Your task to perform on an android device: find photos in the google photos app Image 0: 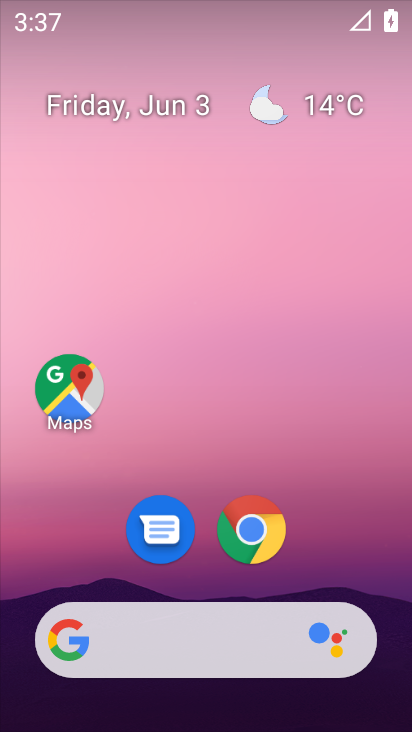
Step 0: drag from (339, 485) to (325, 66)
Your task to perform on an android device: find photos in the google photos app Image 1: 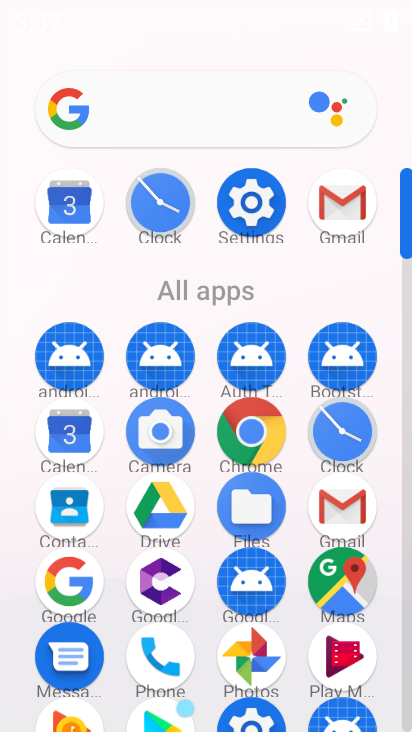
Step 1: click (266, 639)
Your task to perform on an android device: find photos in the google photos app Image 2: 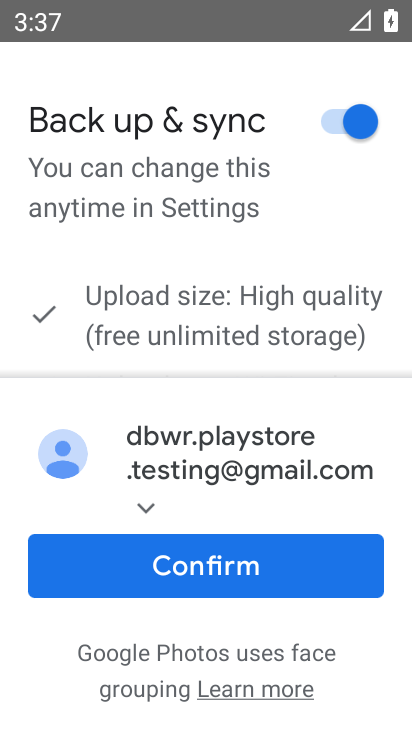
Step 2: click (225, 537)
Your task to perform on an android device: find photos in the google photos app Image 3: 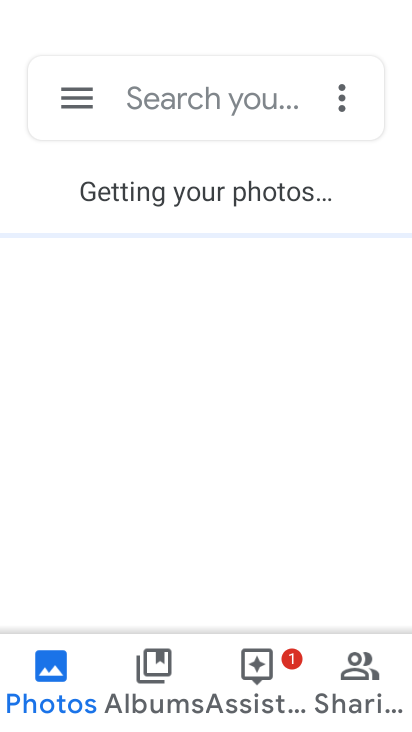
Step 3: drag from (208, 588) to (214, 340)
Your task to perform on an android device: find photos in the google photos app Image 4: 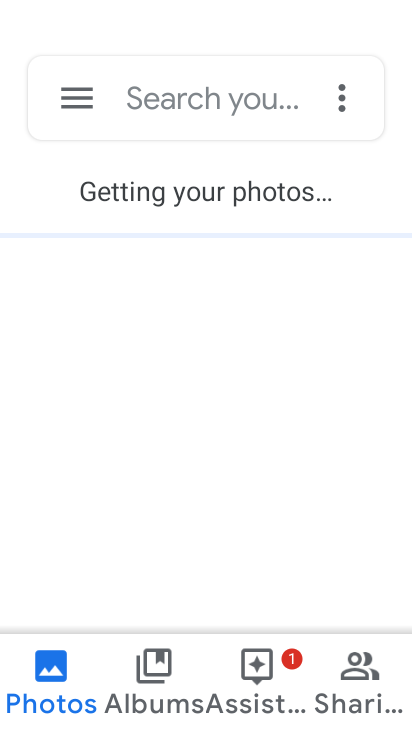
Step 4: click (175, 519)
Your task to perform on an android device: find photos in the google photos app Image 5: 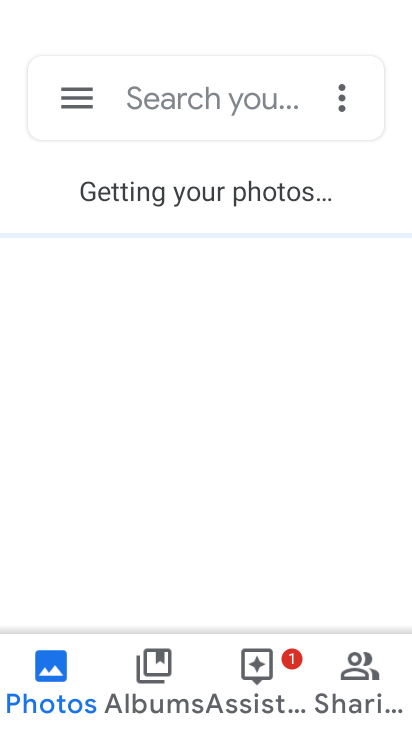
Step 5: click (198, 297)
Your task to perform on an android device: find photos in the google photos app Image 6: 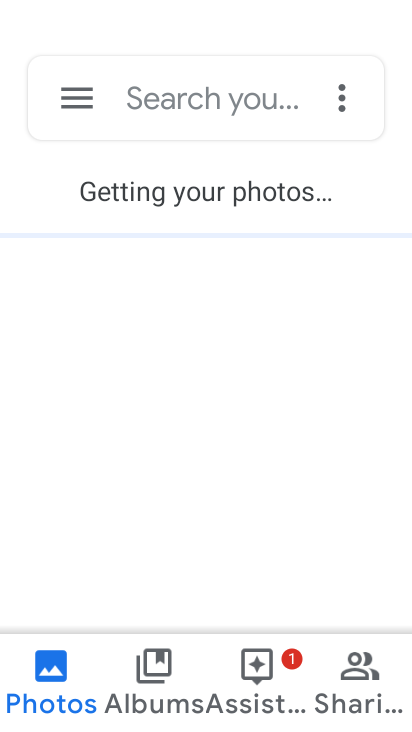
Step 6: click (189, 241)
Your task to perform on an android device: find photos in the google photos app Image 7: 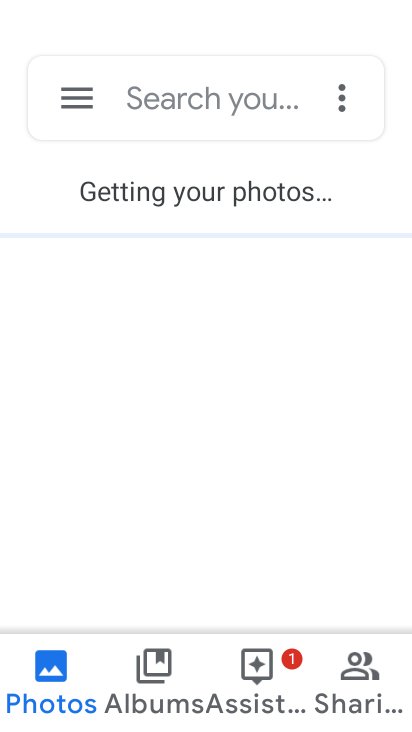
Step 7: click (171, 184)
Your task to perform on an android device: find photos in the google photos app Image 8: 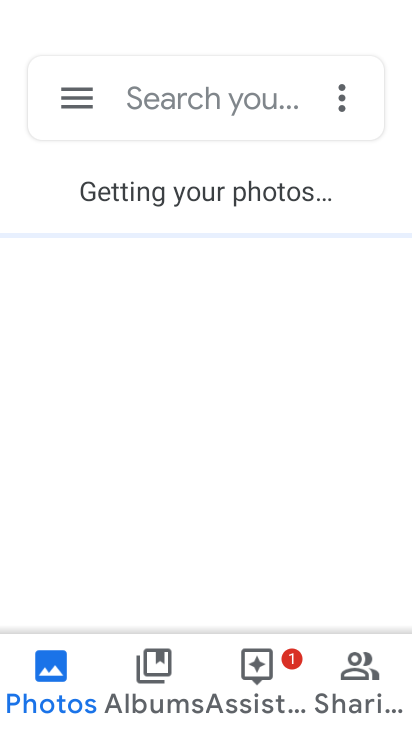
Step 8: click (171, 185)
Your task to perform on an android device: find photos in the google photos app Image 9: 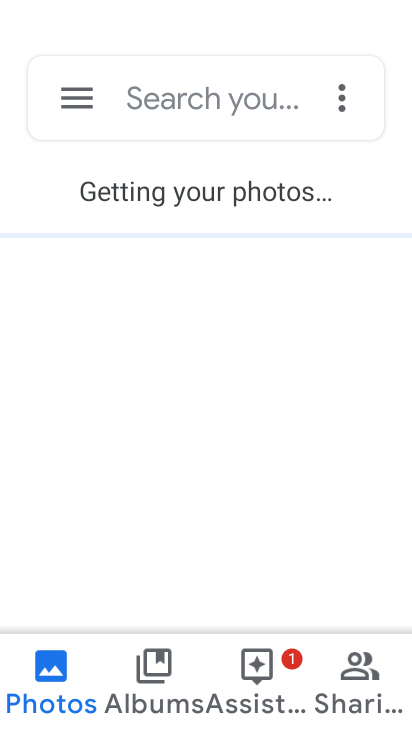
Step 9: click (222, 470)
Your task to perform on an android device: find photos in the google photos app Image 10: 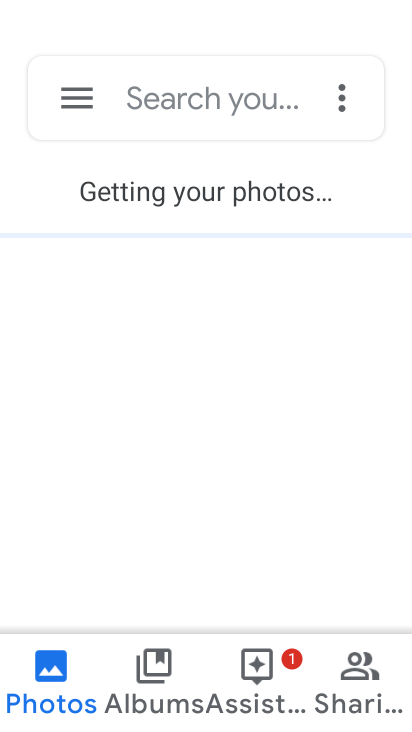
Step 10: click (222, 470)
Your task to perform on an android device: find photos in the google photos app Image 11: 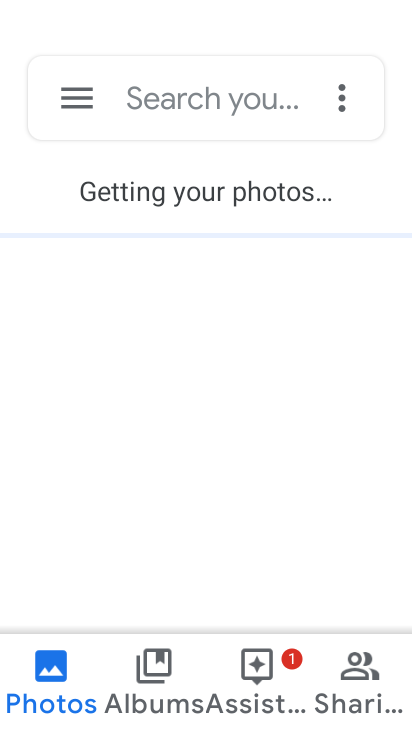
Step 11: drag from (222, 457) to (171, 159)
Your task to perform on an android device: find photos in the google photos app Image 12: 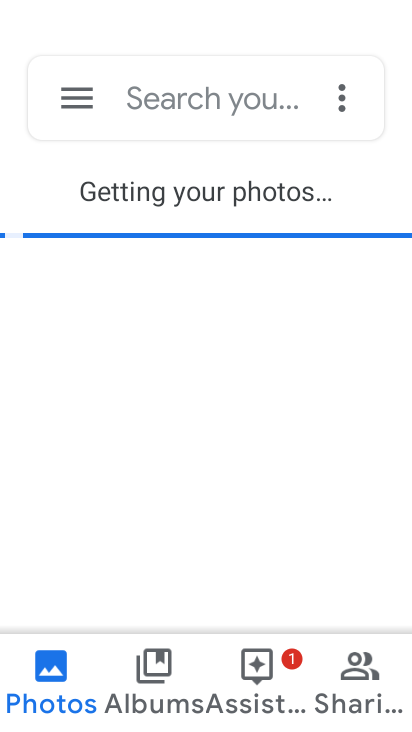
Step 12: drag from (164, 610) to (184, 244)
Your task to perform on an android device: find photos in the google photos app Image 13: 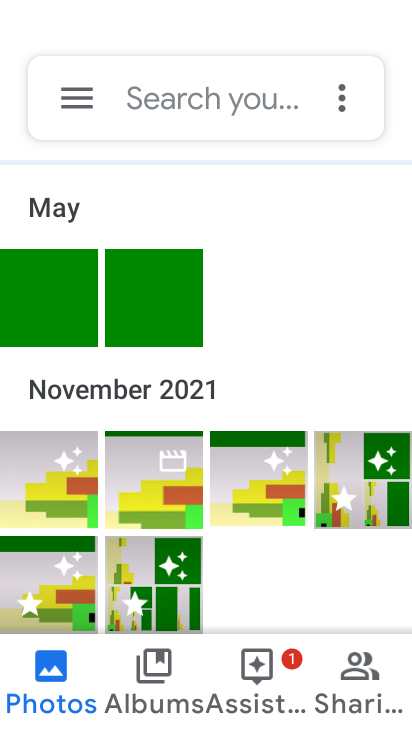
Step 13: click (66, 498)
Your task to perform on an android device: find photos in the google photos app Image 14: 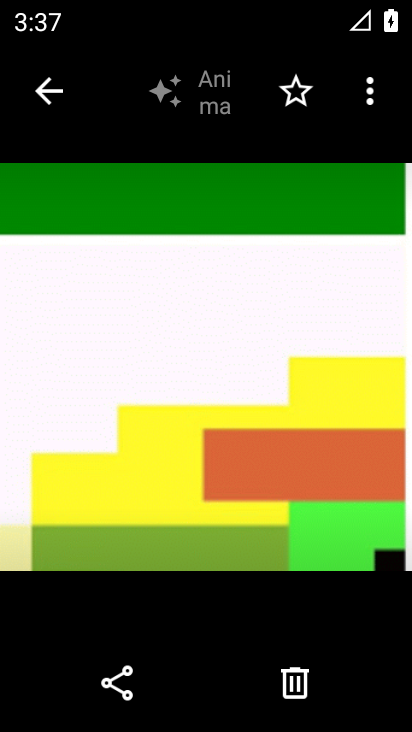
Step 14: task complete